Your task to perform on an android device: Open Chrome and go to settings Image 0: 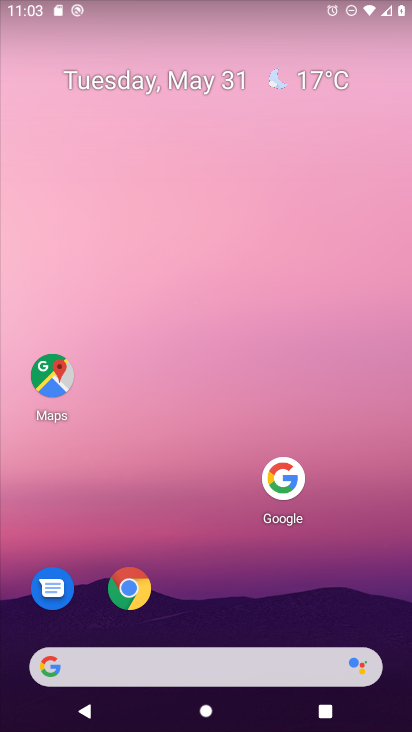
Step 0: press home button
Your task to perform on an android device: Open Chrome and go to settings Image 1: 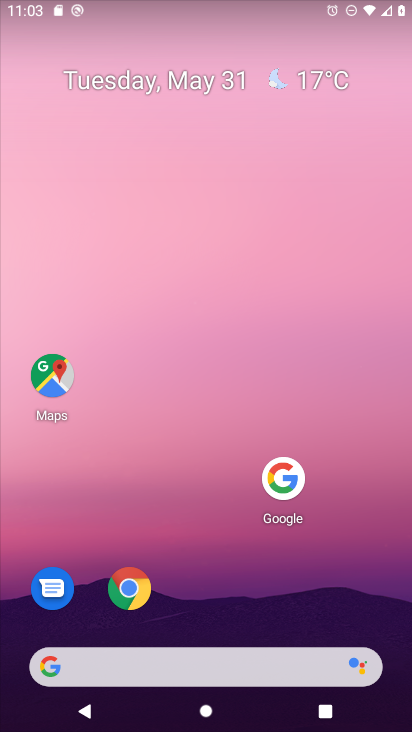
Step 1: click (139, 587)
Your task to perform on an android device: Open Chrome and go to settings Image 2: 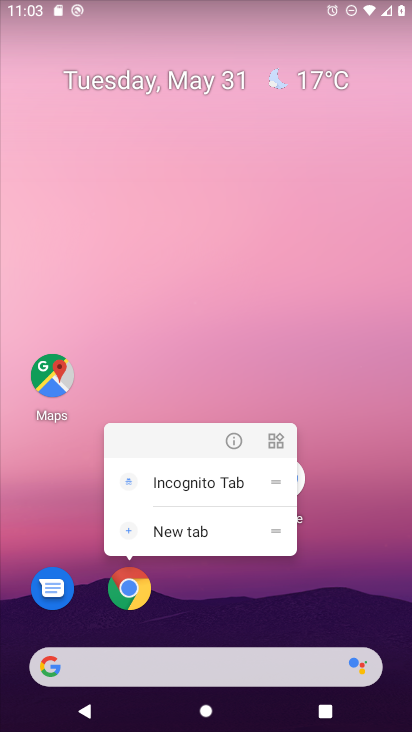
Step 2: click (131, 594)
Your task to perform on an android device: Open Chrome and go to settings Image 3: 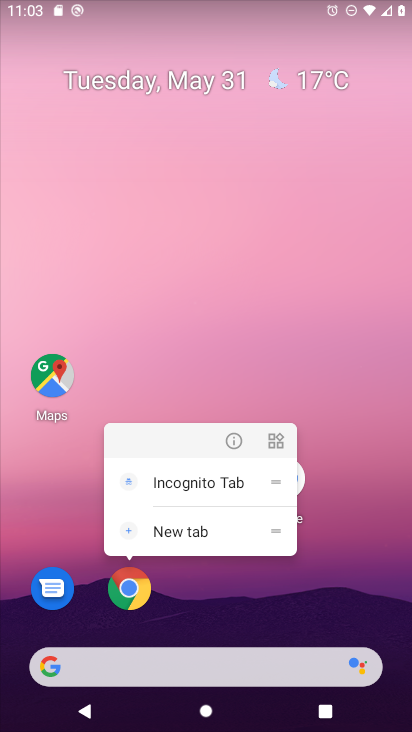
Step 3: click (137, 594)
Your task to perform on an android device: Open Chrome and go to settings Image 4: 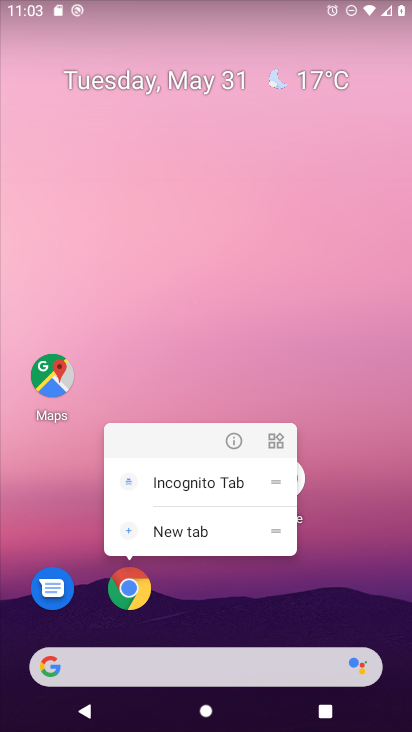
Step 4: click (127, 587)
Your task to perform on an android device: Open Chrome and go to settings Image 5: 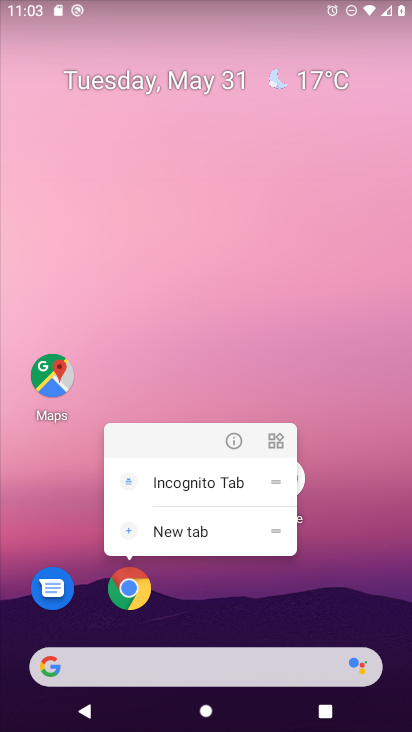
Step 5: click (127, 593)
Your task to perform on an android device: Open Chrome and go to settings Image 6: 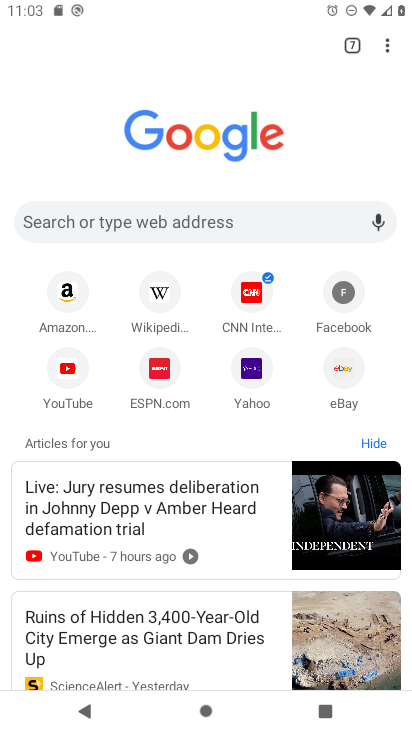
Step 6: task complete